Your task to perform on an android device: check out phone information Image 0: 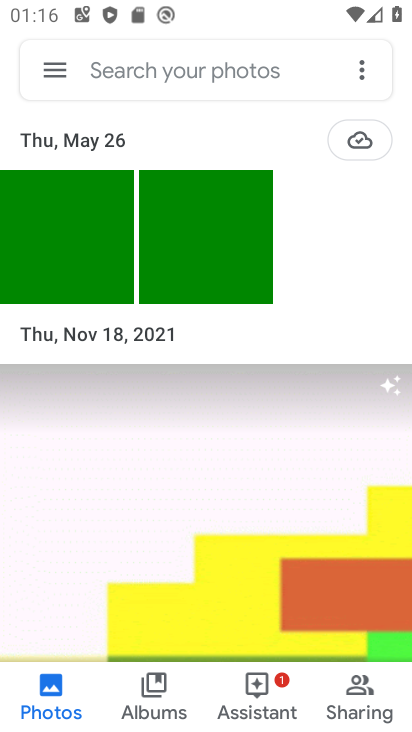
Step 0: press home button
Your task to perform on an android device: check out phone information Image 1: 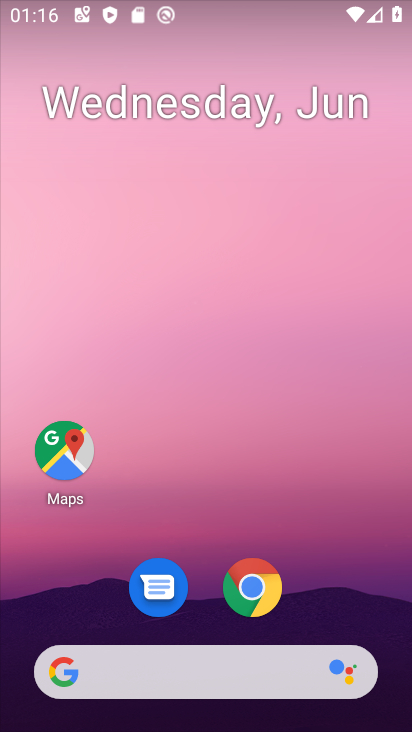
Step 1: drag from (328, 209) to (330, 42)
Your task to perform on an android device: check out phone information Image 2: 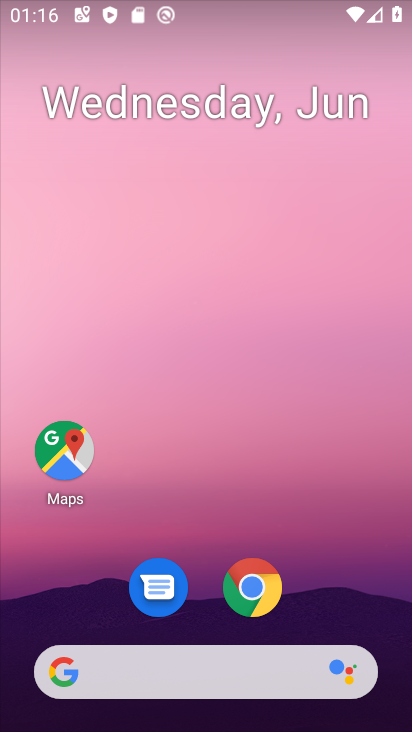
Step 2: drag from (324, 433) to (305, 46)
Your task to perform on an android device: check out phone information Image 3: 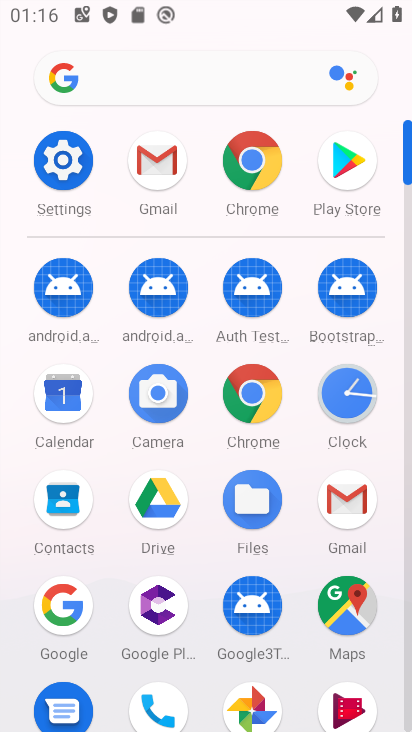
Step 3: drag from (198, 642) to (225, 389)
Your task to perform on an android device: check out phone information Image 4: 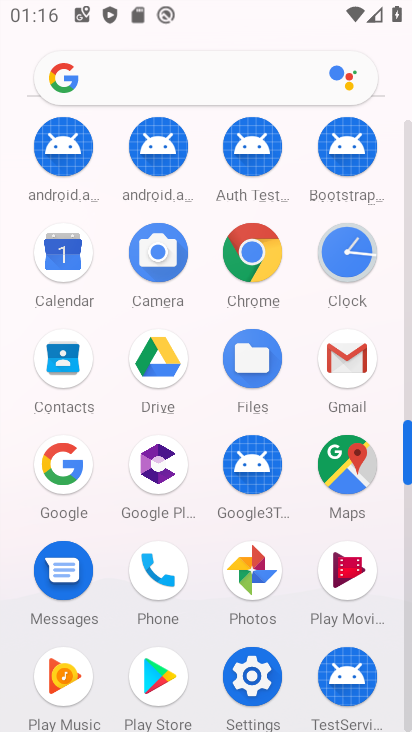
Step 4: click (161, 582)
Your task to perform on an android device: check out phone information Image 5: 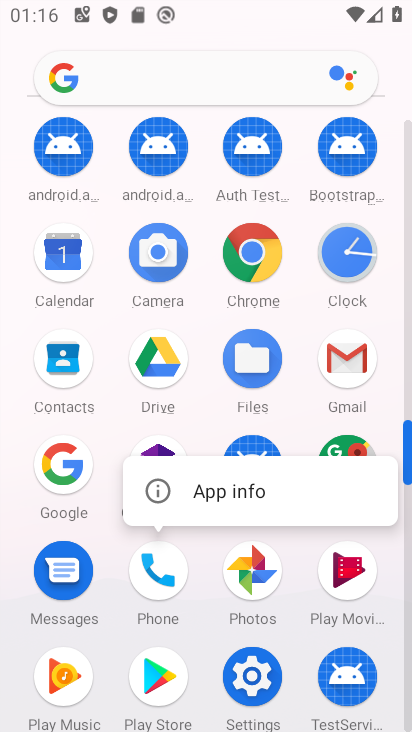
Step 5: click (210, 498)
Your task to perform on an android device: check out phone information Image 6: 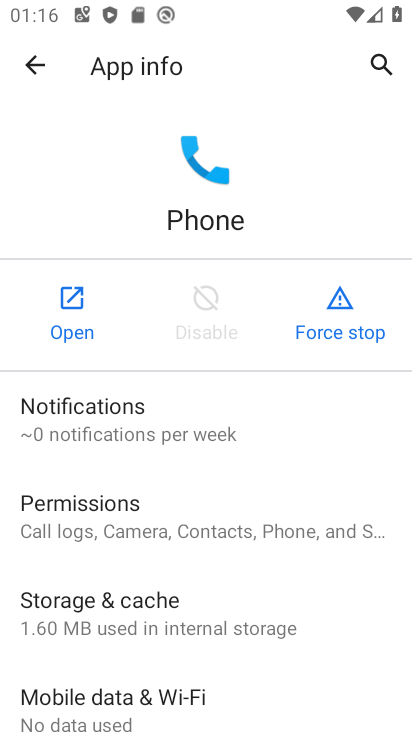
Step 6: task complete